Your task to perform on an android device: Open Reddit.com Image 0: 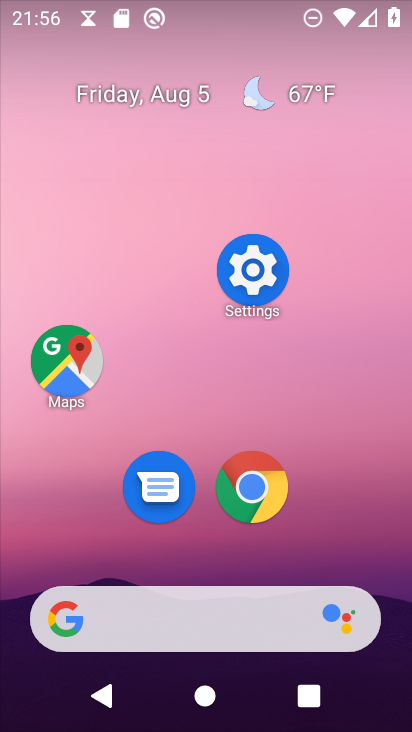
Step 0: click (252, 501)
Your task to perform on an android device: Open Reddit.com Image 1: 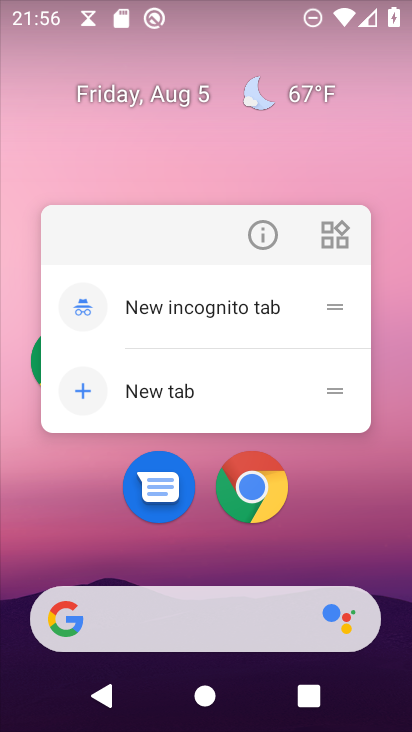
Step 1: click (265, 485)
Your task to perform on an android device: Open Reddit.com Image 2: 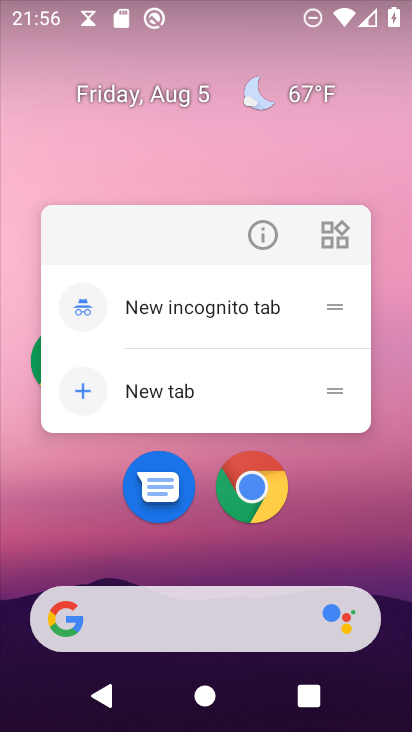
Step 2: click (265, 486)
Your task to perform on an android device: Open Reddit.com Image 3: 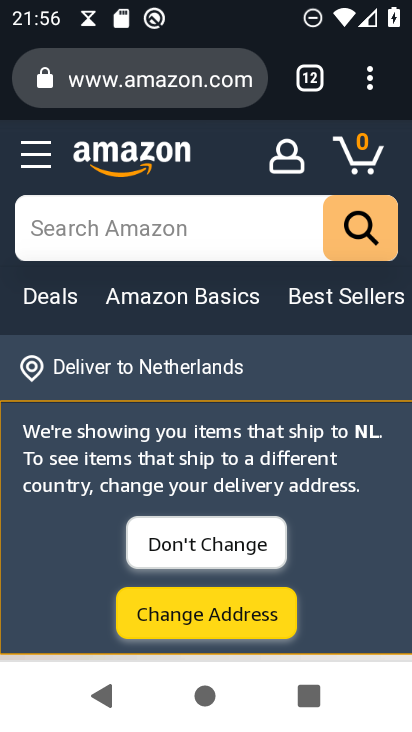
Step 3: drag from (374, 82) to (178, 148)
Your task to perform on an android device: Open Reddit.com Image 4: 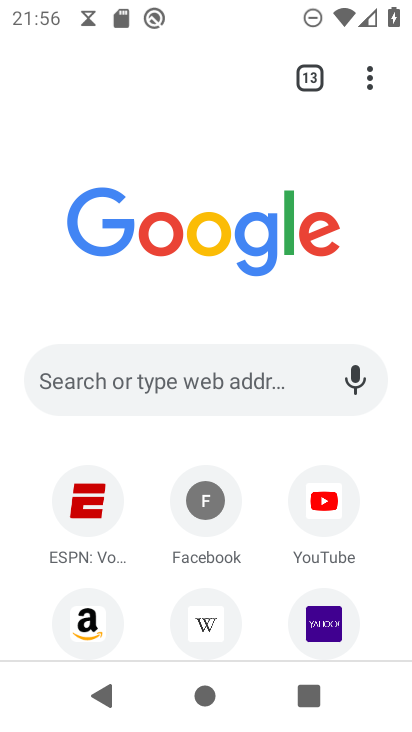
Step 4: drag from (166, 600) to (262, 554)
Your task to perform on an android device: Open Reddit.com Image 5: 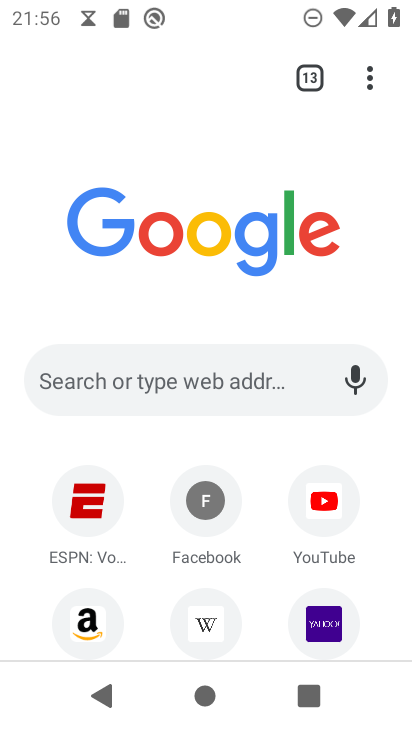
Step 5: click (96, 367)
Your task to perform on an android device: Open Reddit.com Image 6: 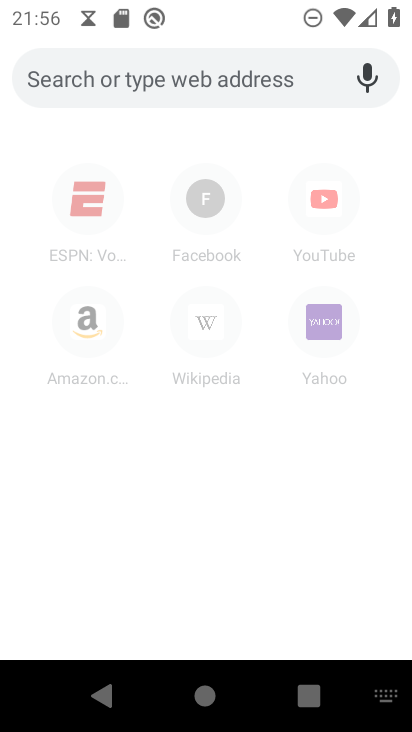
Step 6: type "Reddit.com"
Your task to perform on an android device: Open Reddit.com Image 7: 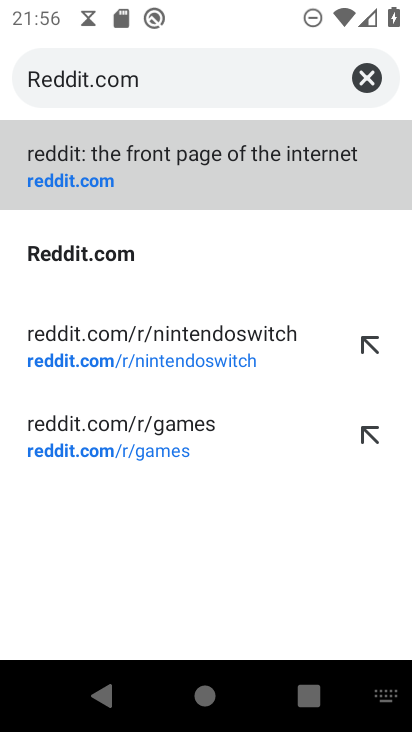
Step 7: click (194, 167)
Your task to perform on an android device: Open Reddit.com Image 8: 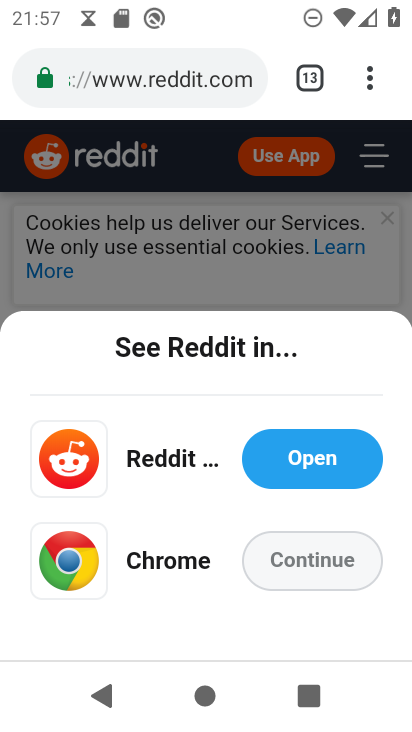
Step 8: task complete